Your task to perform on an android device: turn off notifications in google photos Image 0: 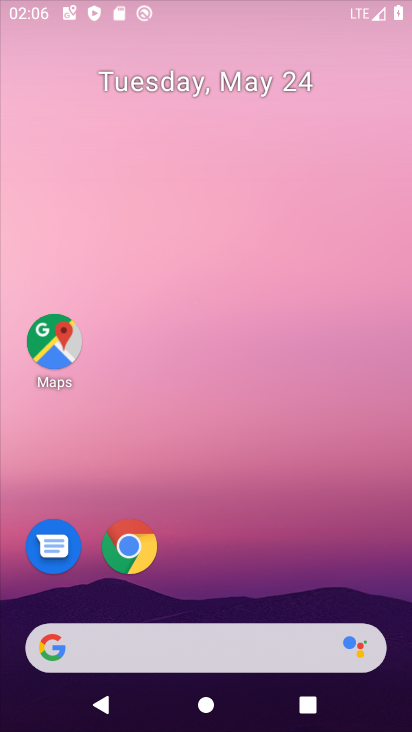
Step 0: drag from (203, 561) to (337, 149)
Your task to perform on an android device: turn off notifications in google photos Image 1: 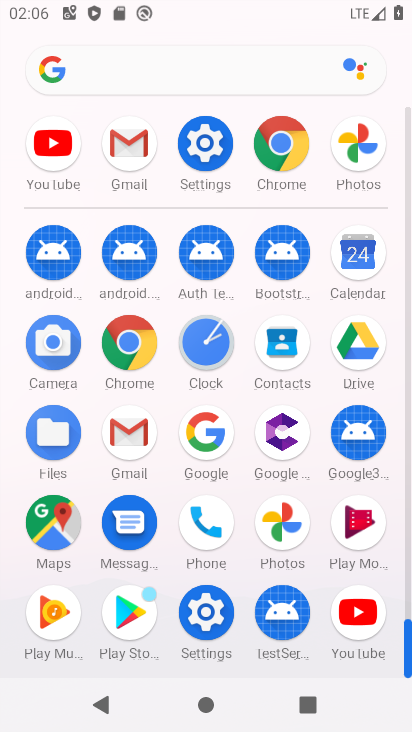
Step 1: click (298, 523)
Your task to perform on an android device: turn off notifications in google photos Image 2: 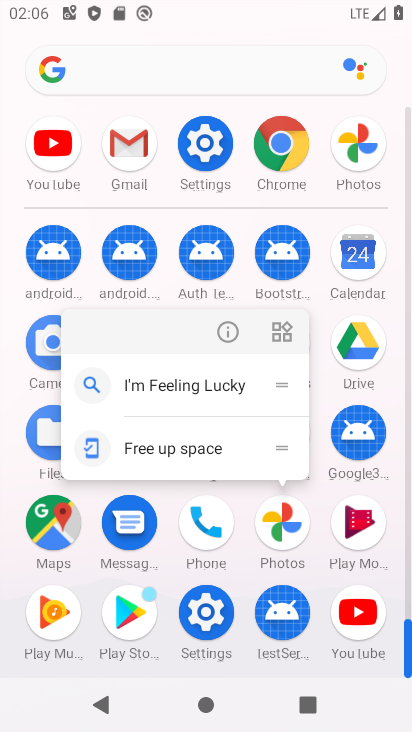
Step 2: click (224, 336)
Your task to perform on an android device: turn off notifications in google photos Image 3: 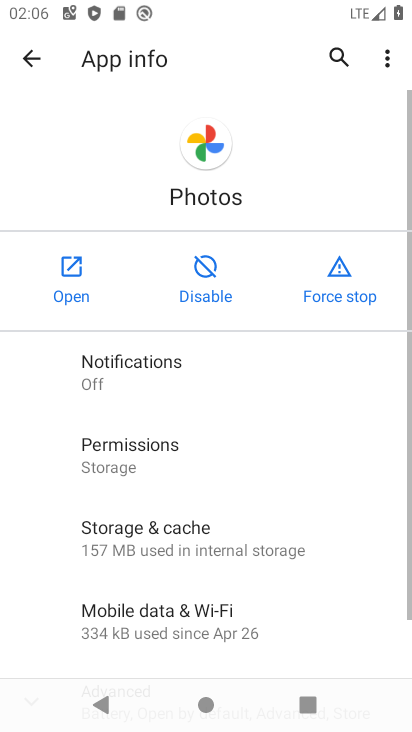
Step 3: click (71, 281)
Your task to perform on an android device: turn off notifications in google photos Image 4: 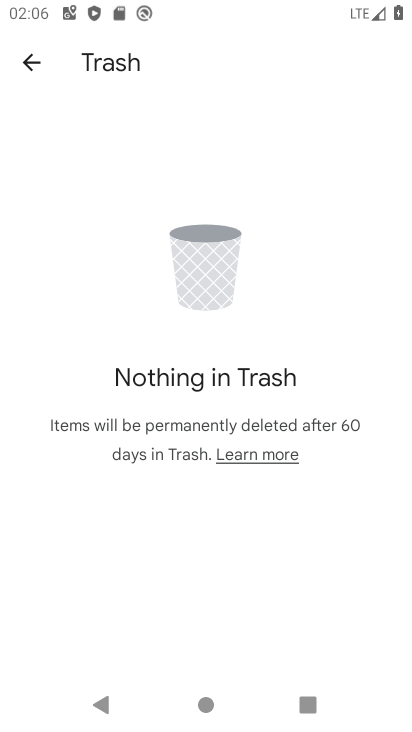
Step 4: drag from (257, 565) to (253, 382)
Your task to perform on an android device: turn off notifications in google photos Image 5: 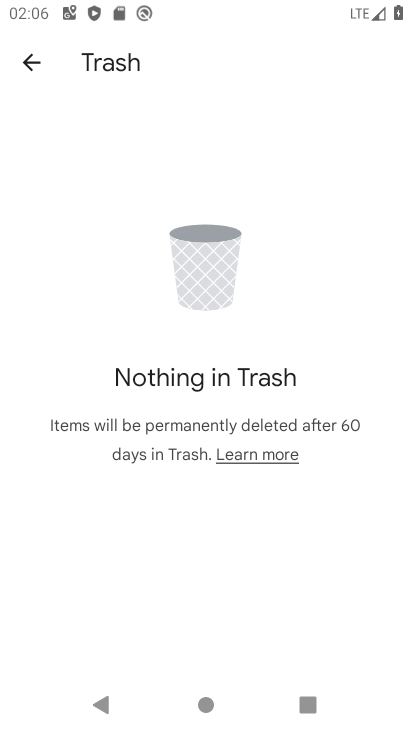
Step 5: click (173, 189)
Your task to perform on an android device: turn off notifications in google photos Image 6: 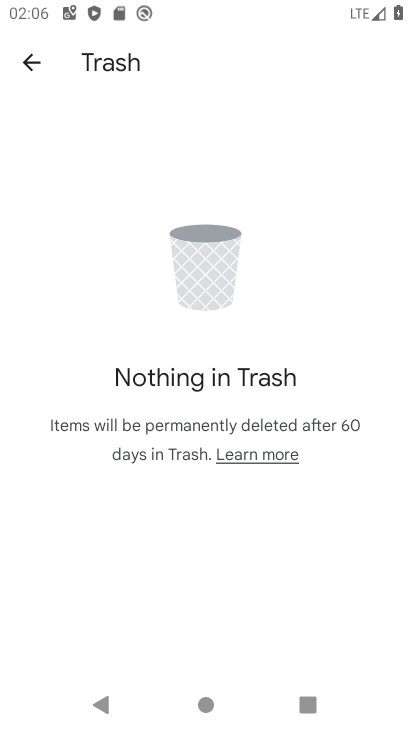
Step 6: press home button
Your task to perform on an android device: turn off notifications in google photos Image 7: 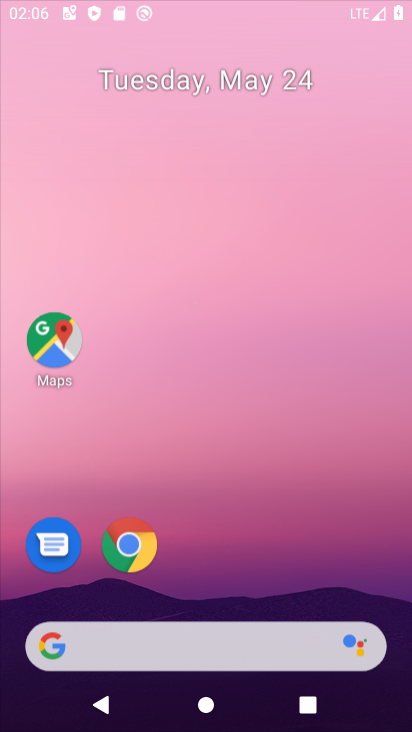
Step 7: drag from (209, 594) to (289, 65)
Your task to perform on an android device: turn off notifications in google photos Image 8: 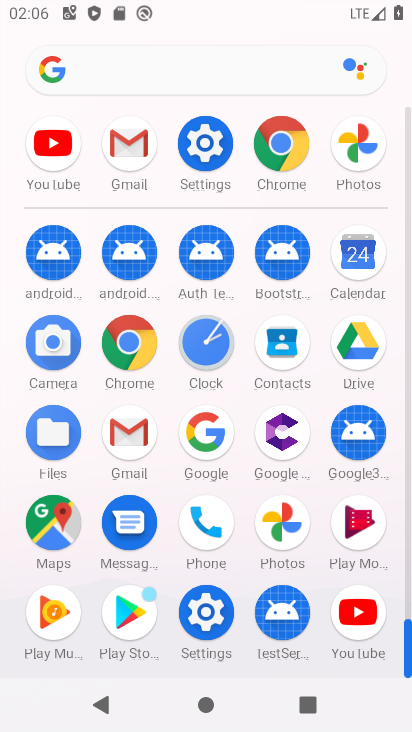
Step 8: click (287, 522)
Your task to perform on an android device: turn off notifications in google photos Image 9: 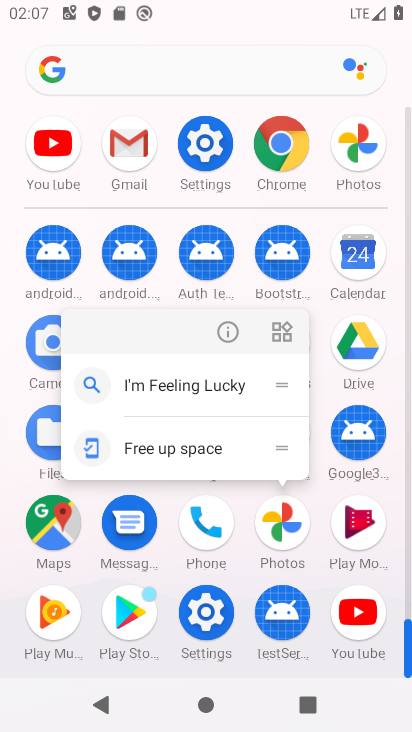
Step 9: click (212, 334)
Your task to perform on an android device: turn off notifications in google photos Image 10: 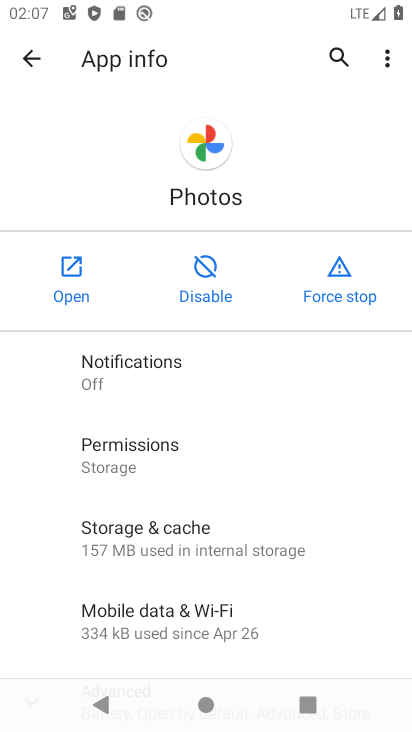
Step 10: click (73, 265)
Your task to perform on an android device: turn off notifications in google photos Image 11: 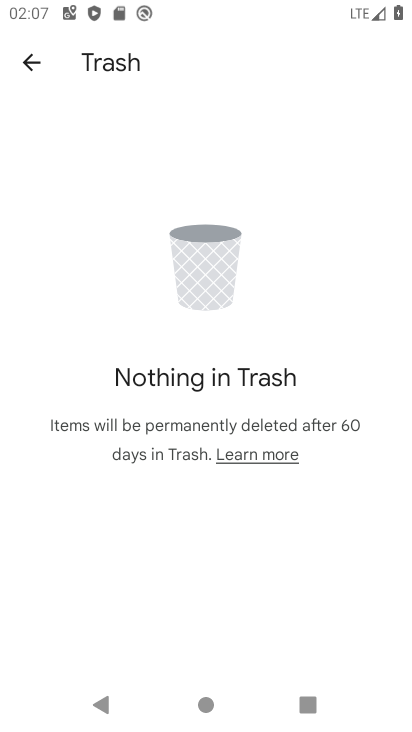
Step 11: click (35, 55)
Your task to perform on an android device: turn off notifications in google photos Image 12: 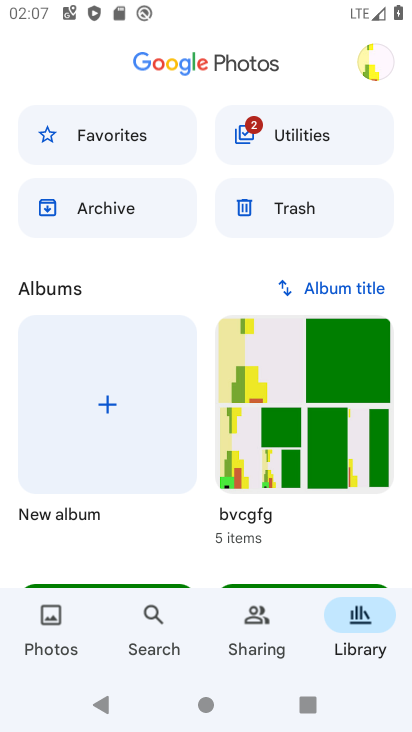
Step 12: drag from (209, 522) to (211, 210)
Your task to perform on an android device: turn off notifications in google photos Image 13: 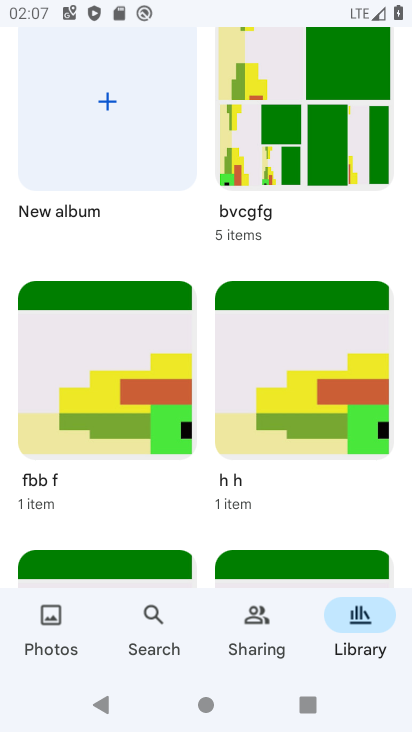
Step 13: drag from (209, 207) to (284, 612)
Your task to perform on an android device: turn off notifications in google photos Image 14: 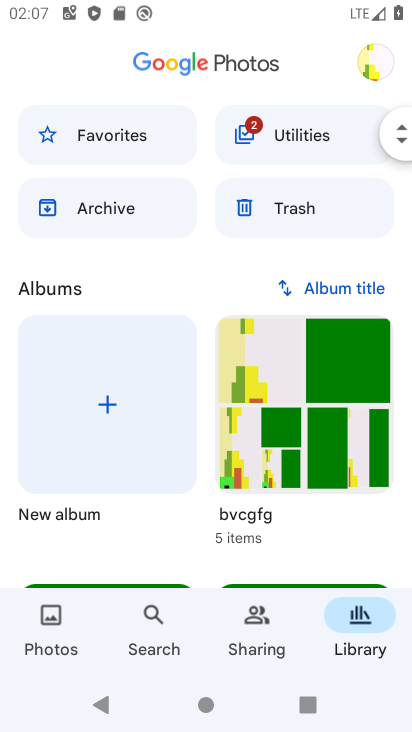
Step 14: click (394, 56)
Your task to perform on an android device: turn off notifications in google photos Image 15: 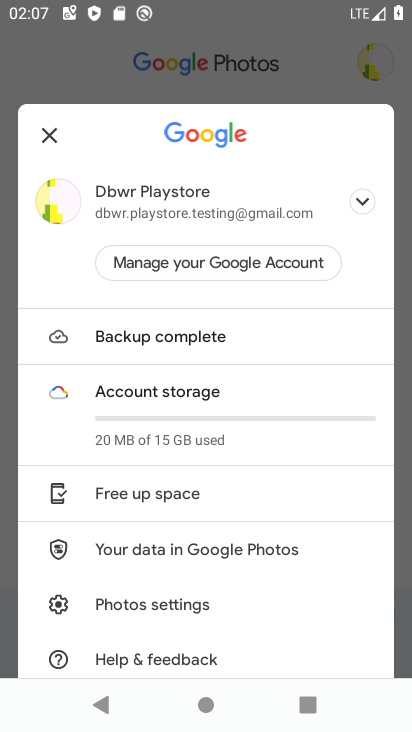
Step 15: click (166, 599)
Your task to perform on an android device: turn off notifications in google photos Image 16: 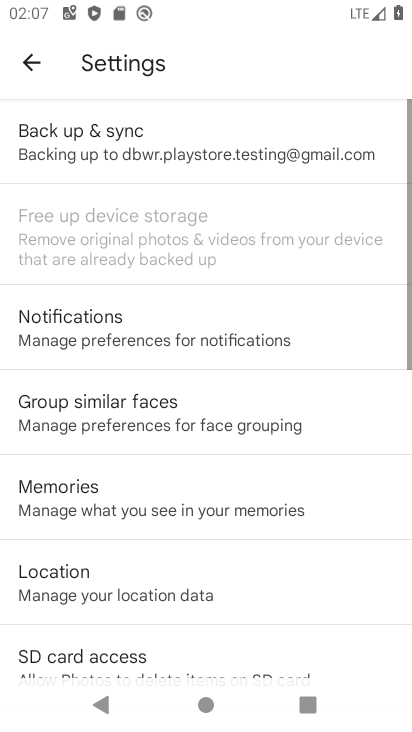
Step 16: drag from (70, 604) to (117, 298)
Your task to perform on an android device: turn off notifications in google photos Image 17: 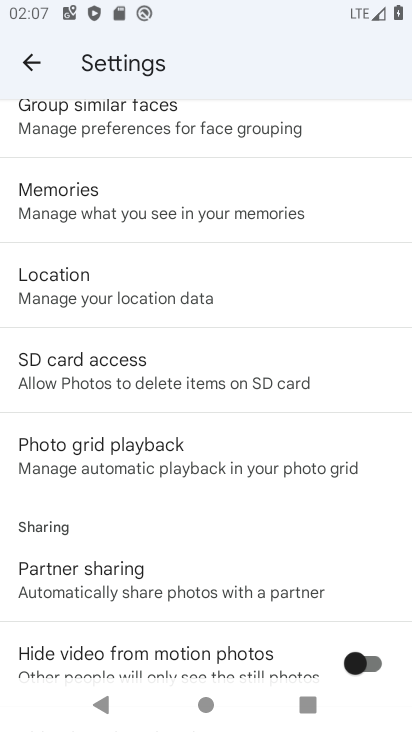
Step 17: drag from (164, 164) to (181, 509)
Your task to perform on an android device: turn off notifications in google photos Image 18: 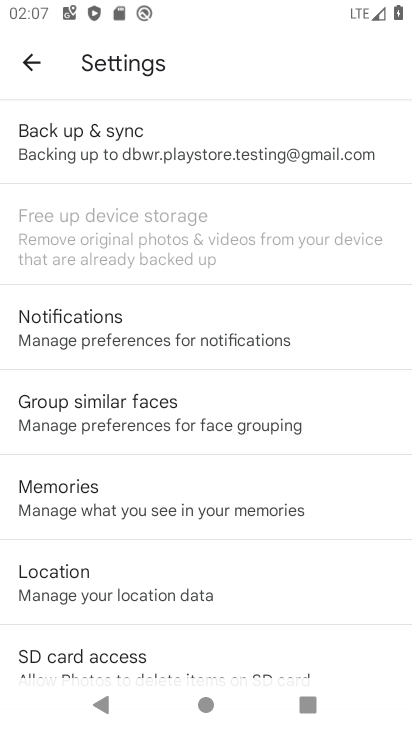
Step 18: click (130, 330)
Your task to perform on an android device: turn off notifications in google photos Image 19: 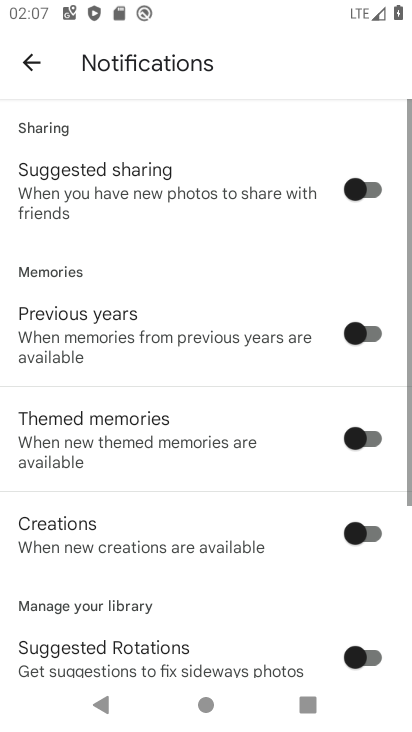
Step 19: drag from (183, 570) to (215, 198)
Your task to perform on an android device: turn off notifications in google photos Image 20: 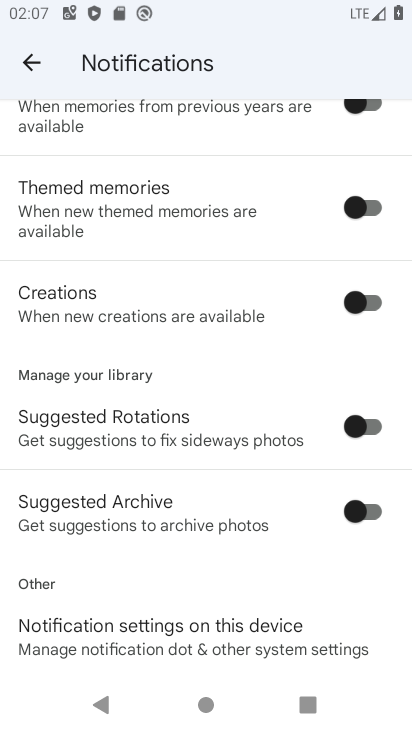
Step 20: drag from (210, 497) to (279, 228)
Your task to perform on an android device: turn off notifications in google photos Image 21: 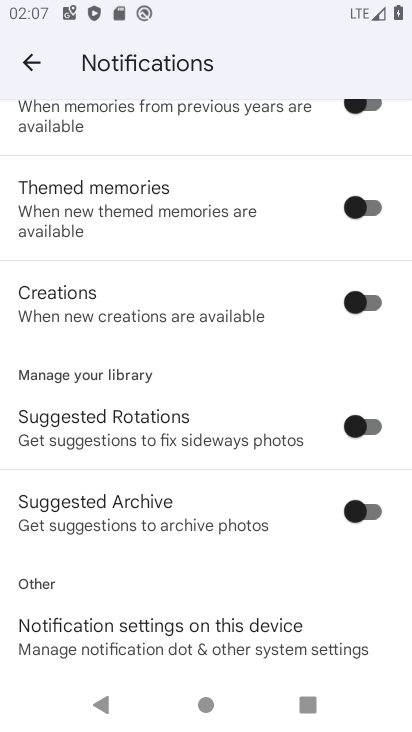
Step 21: drag from (151, 615) to (193, 88)
Your task to perform on an android device: turn off notifications in google photos Image 22: 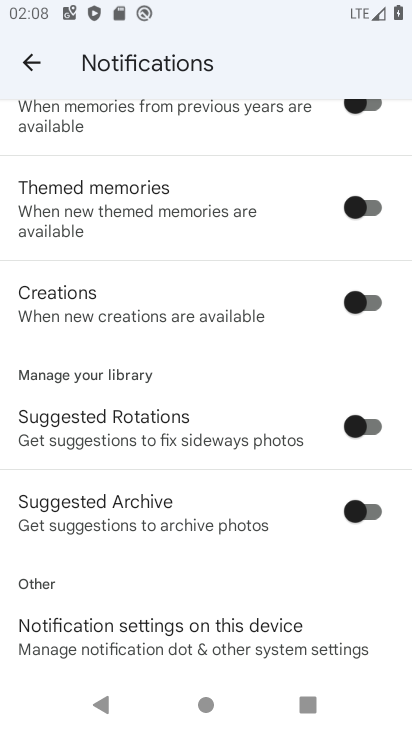
Step 22: drag from (198, 637) to (261, 269)
Your task to perform on an android device: turn off notifications in google photos Image 23: 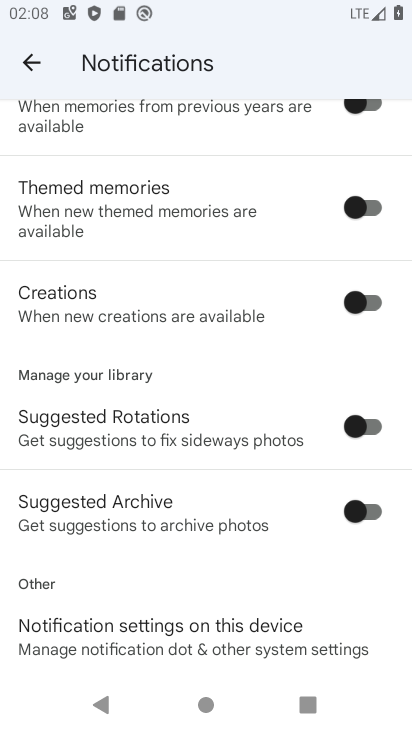
Step 23: click (138, 619)
Your task to perform on an android device: turn off notifications in google photos Image 24: 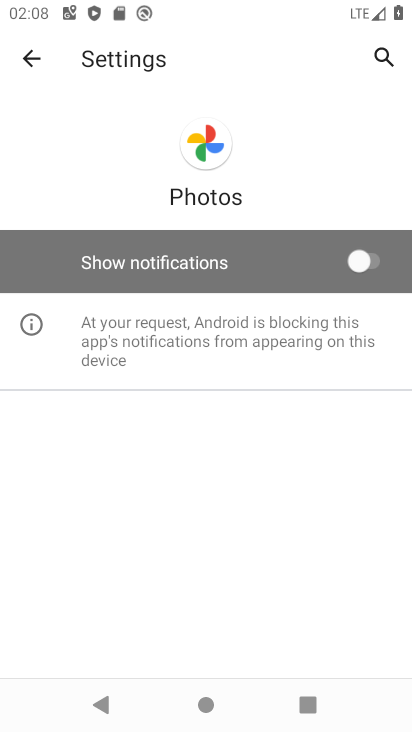
Step 24: task complete